Your task to perform on an android device: Search for Italian restaurants on Maps Image 0: 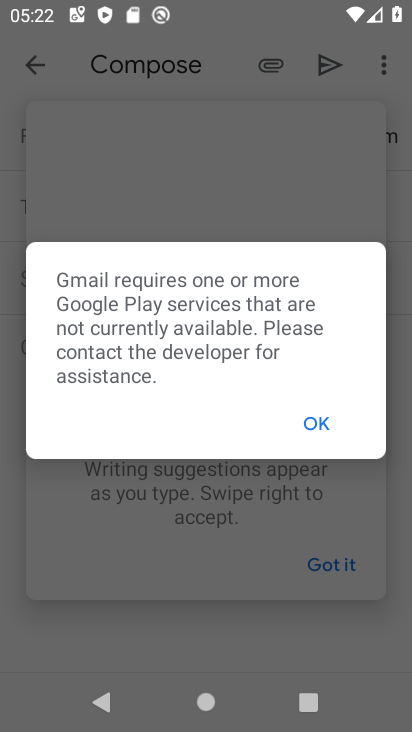
Step 0: press home button
Your task to perform on an android device: Search for Italian restaurants on Maps Image 1: 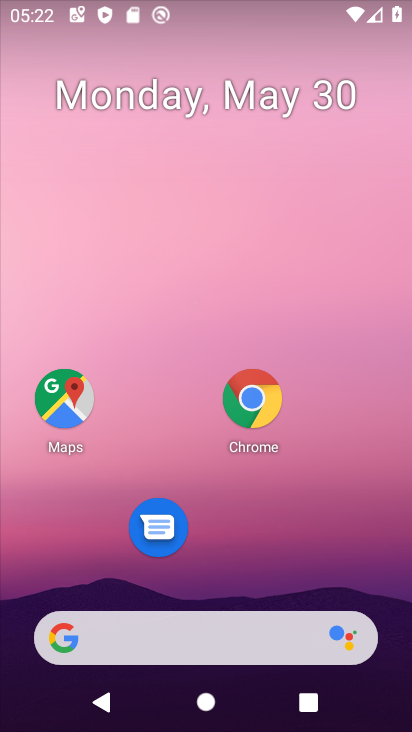
Step 1: drag from (235, 715) to (237, 146)
Your task to perform on an android device: Search for Italian restaurants on Maps Image 2: 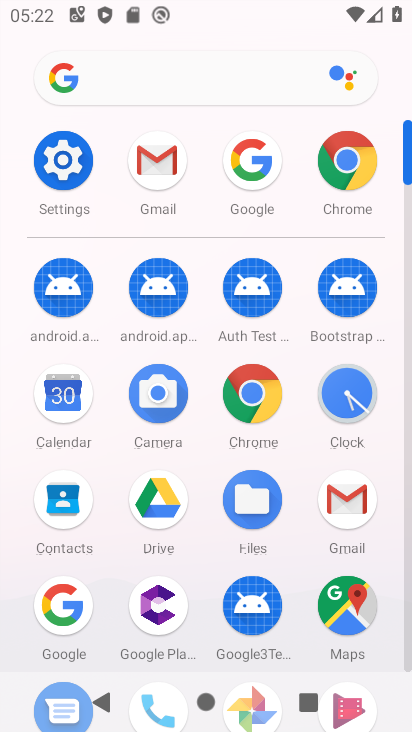
Step 2: click (346, 594)
Your task to perform on an android device: Search for Italian restaurants on Maps Image 3: 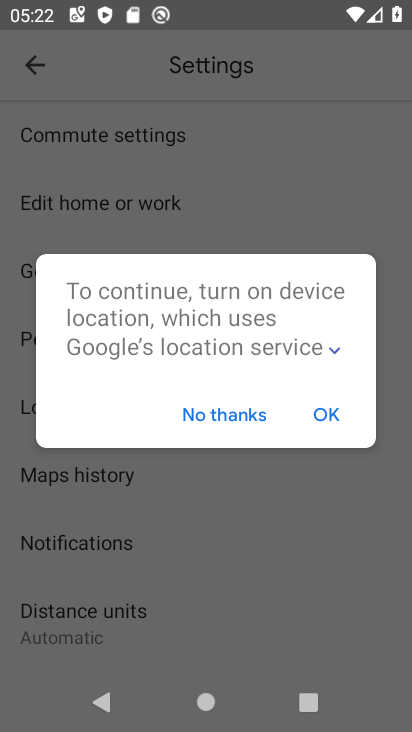
Step 3: click (246, 411)
Your task to perform on an android device: Search for Italian restaurants on Maps Image 4: 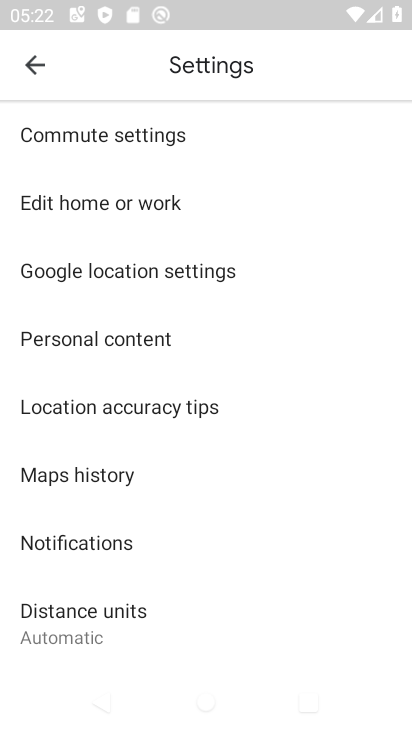
Step 4: click (37, 66)
Your task to perform on an android device: Search for Italian restaurants on Maps Image 5: 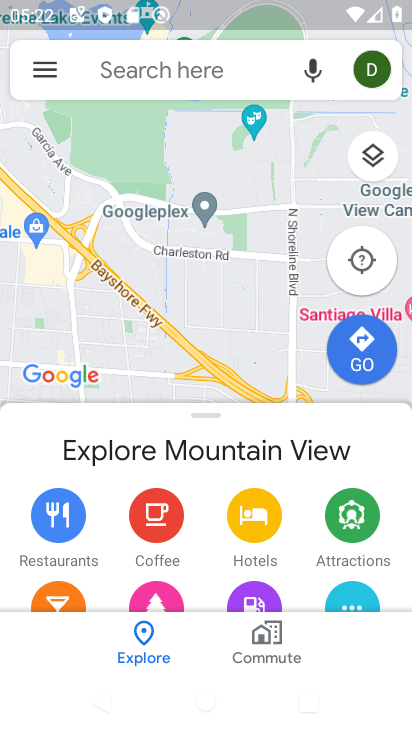
Step 5: click (177, 73)
Your task to perform on an android device: Search for Italian restaurants on Maps Image 6: 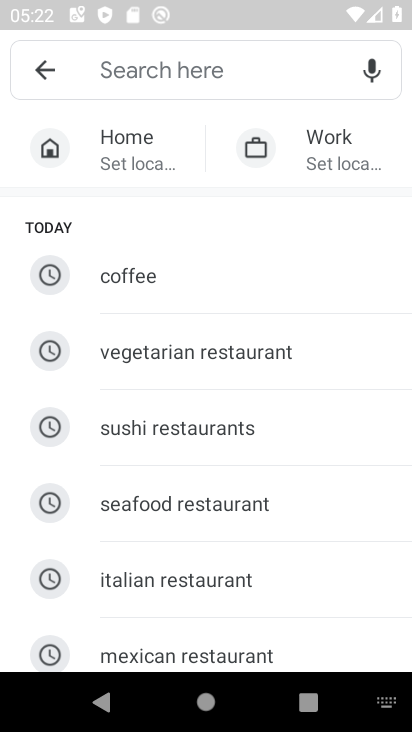
Step 6: type "italian restaurants"
Your task to perform on an android device: Search for Italian restaurants on Maps Image 7: 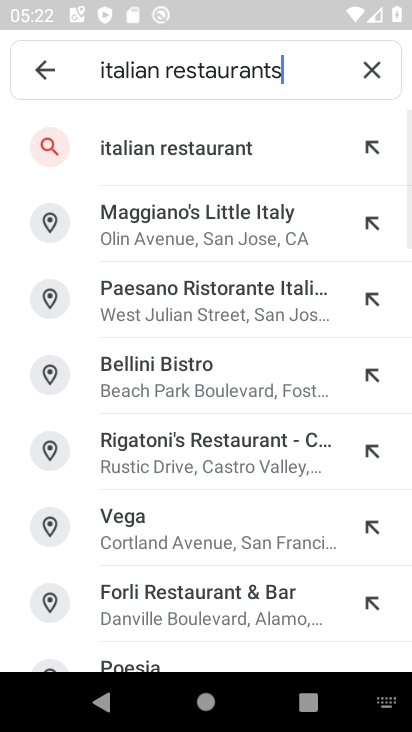
Step 7: click (173, 151)
Your task to perform on an android device: Search for Italian restaurants on Maps Image 8: 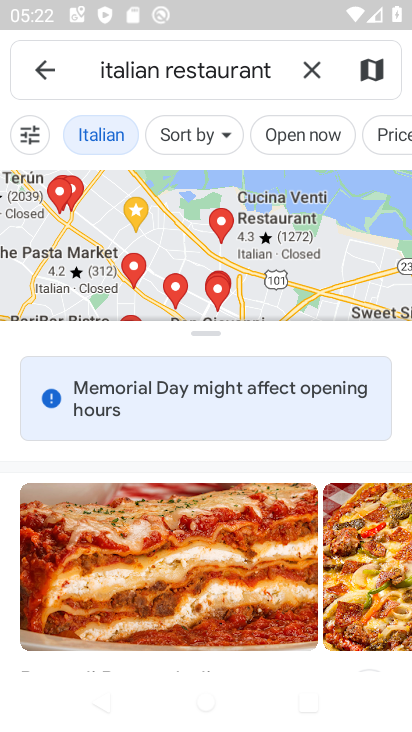
Step 8: task complete